Your task to perform on an android device: Go to Yahoo.com Image 0: 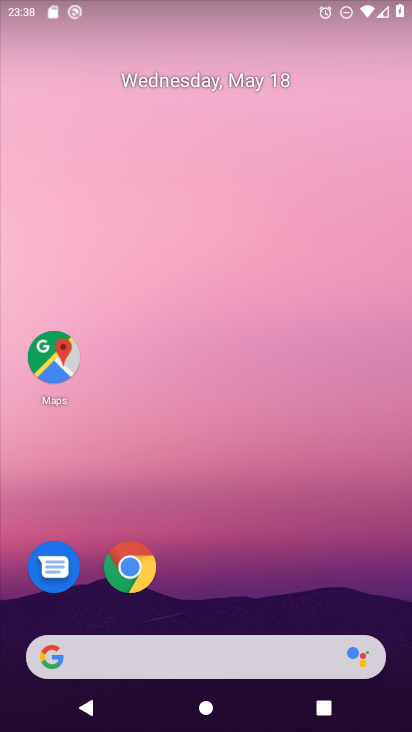
Step 0: press home button
Your task to perform on an android device: Go to Yahoo.com Image 1: 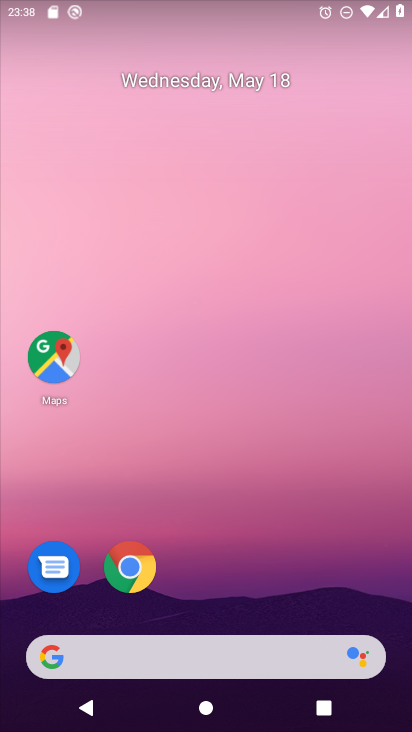
Step 1: drag from (281, 680) to (208, 86)
Your task to perform on an android device: Go to Yahoo.com Image 2: 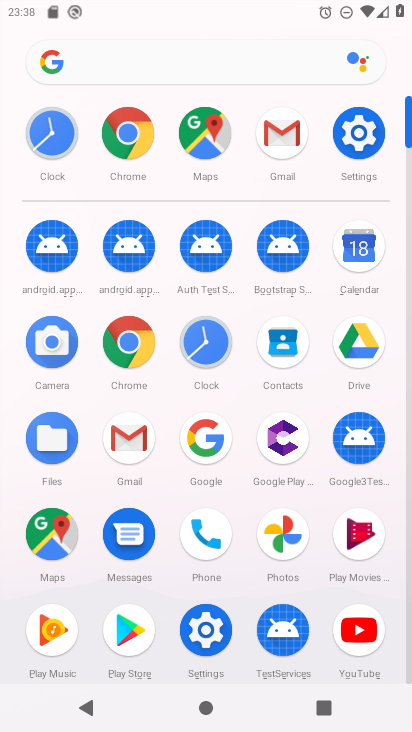
Step 2: click (120, 144)
Your task to perform on an android device: Go to Yahoo.com Image 3: 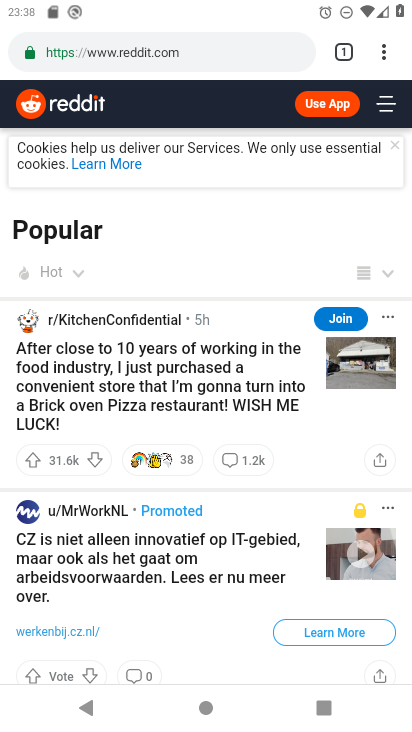
Step 3: click (155, 49)
Your task to perform on an android device: Go to Yahoo.com Image 4: 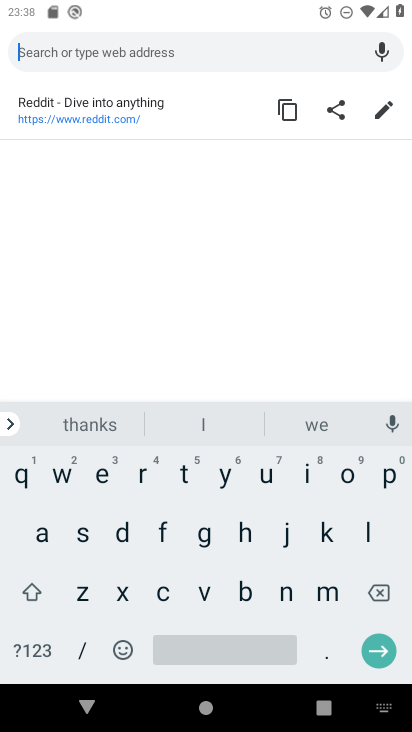
Step 4: click (224, 479)
Your task to perform on an android device: Go to Yahoo.com Image 5: 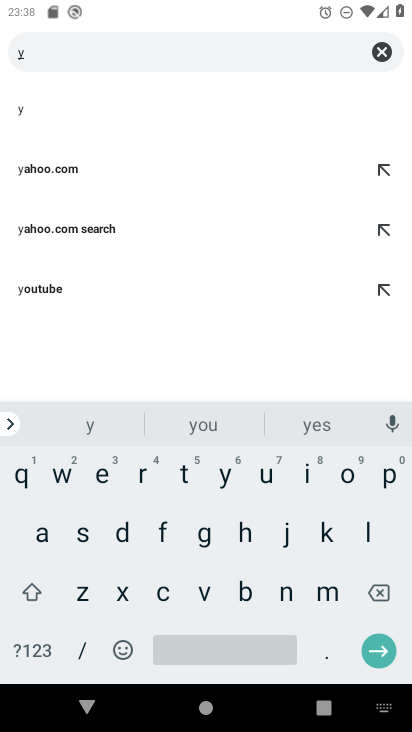
Step 5: click (61, 163)
Your task to perform on an android device: Go to Yahoo.com Image 6: 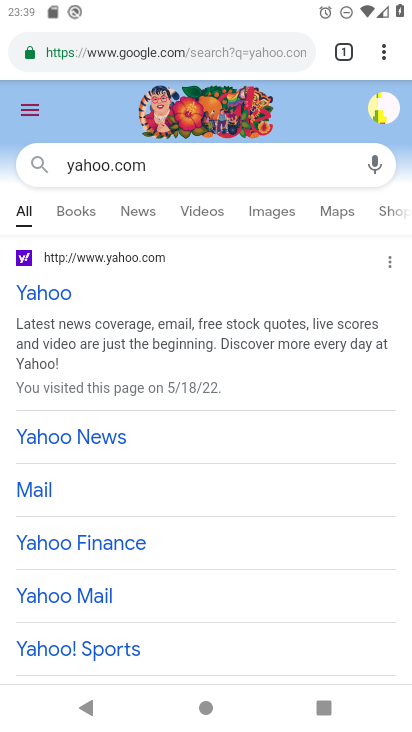
Step 6: click (52, 291)
Your task to perform on an android device: Go to Yahoo.com Image 7: 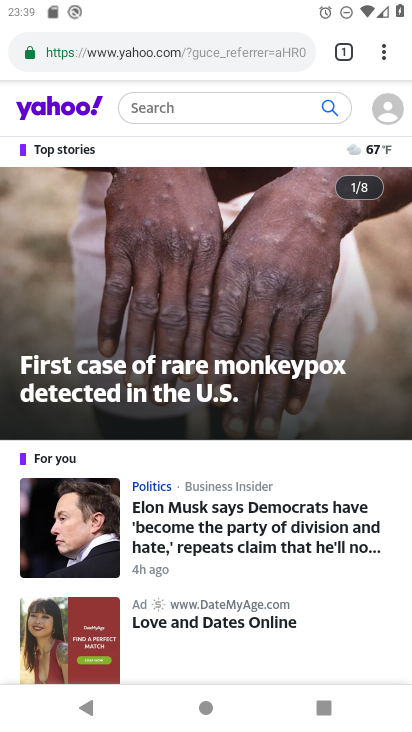
Step 7: task complete